Your task to perform on an android device: Open the map Image 0: 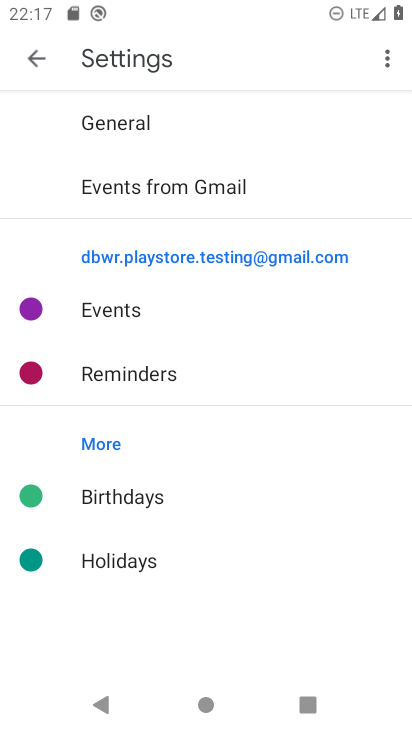
Step 0: press back button
Your task to perform on an android device: Open the map Image 1: 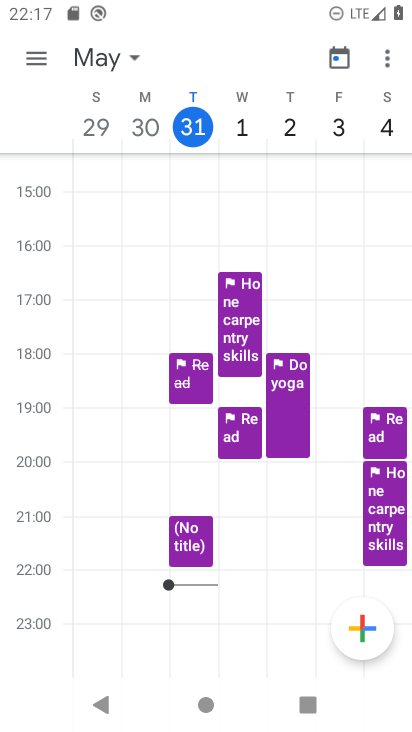
Step 1: press back button
Your task to perform on an android device: Open the map Image 2: 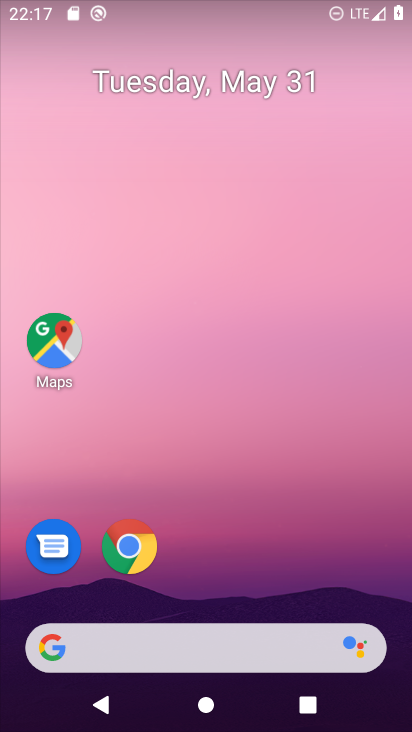
Step 2: click (42, 352)
Your task to perform on an android device: Open the map Image 3: 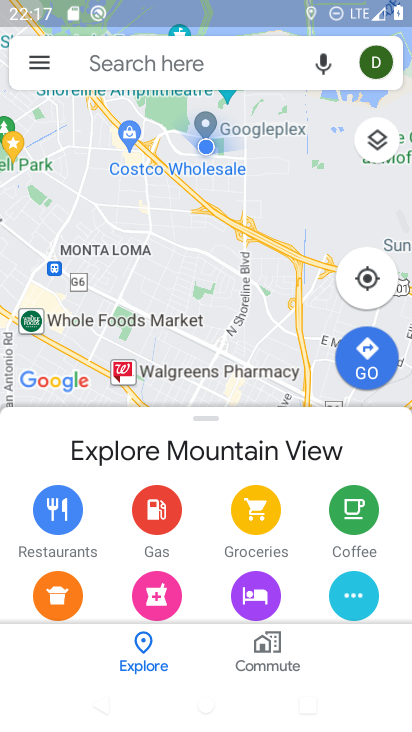
Step 3: task complete